Your task to perform on an android device: Go to sound settings Image 0: 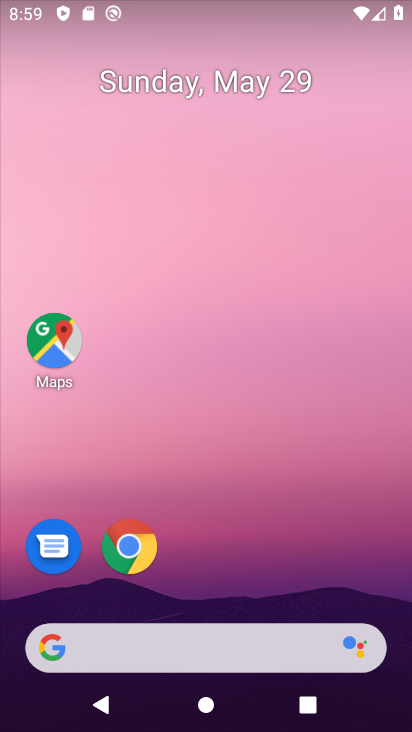
Step 0: drag from (181, 622) to (344, 27)
Your task to perform on an android device: Go to sound settings Image 1: 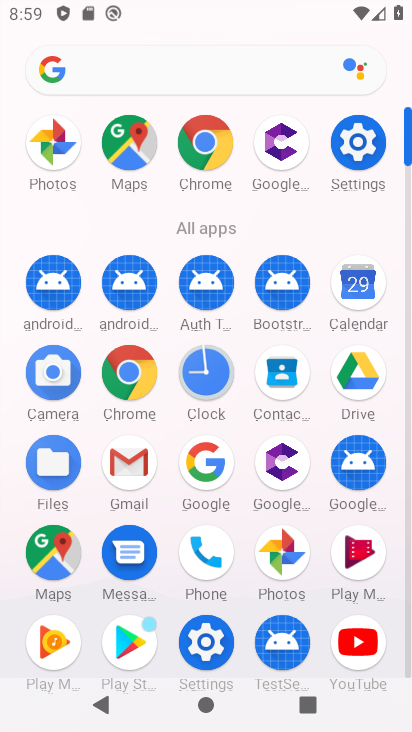
Step 1: click (197, 651)
Your task to perform on an android device: Go to sound settings Image 2: 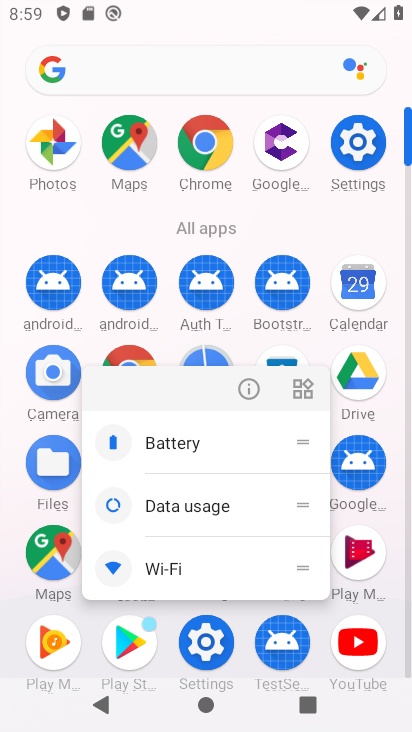
Step 2: click (209, 656)
Your task to perform on an android device: Go to sound settings Image 3: 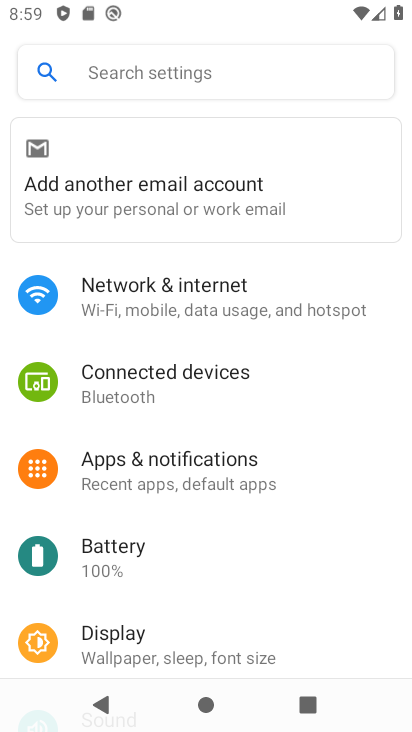
Step 3: drag from (170, 625) to (221, 354)
Your task to perform on an android device: Go to sound settings Image 4: 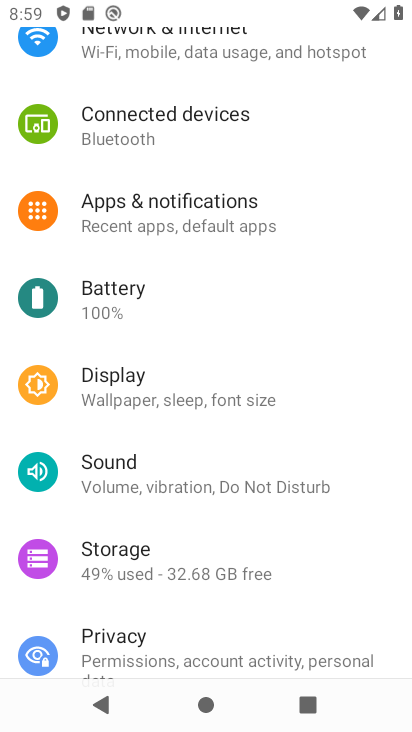
Step 4: click (134, 472)
Your task to perform on an android device: Go to sound settings Image 5: 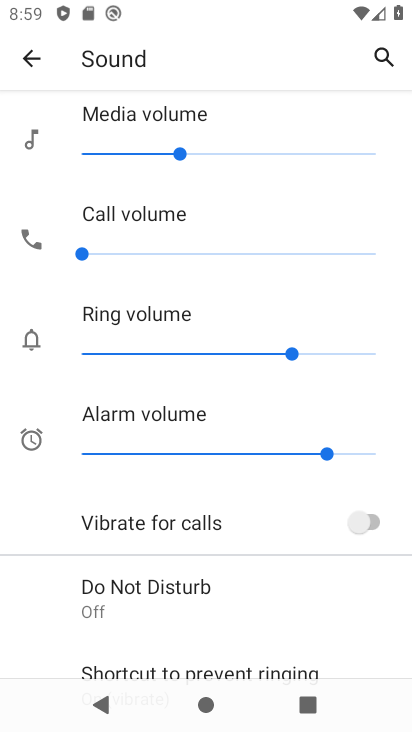
Step 5: task complete